Your task to perform on an android device: See recent photos Image 0: 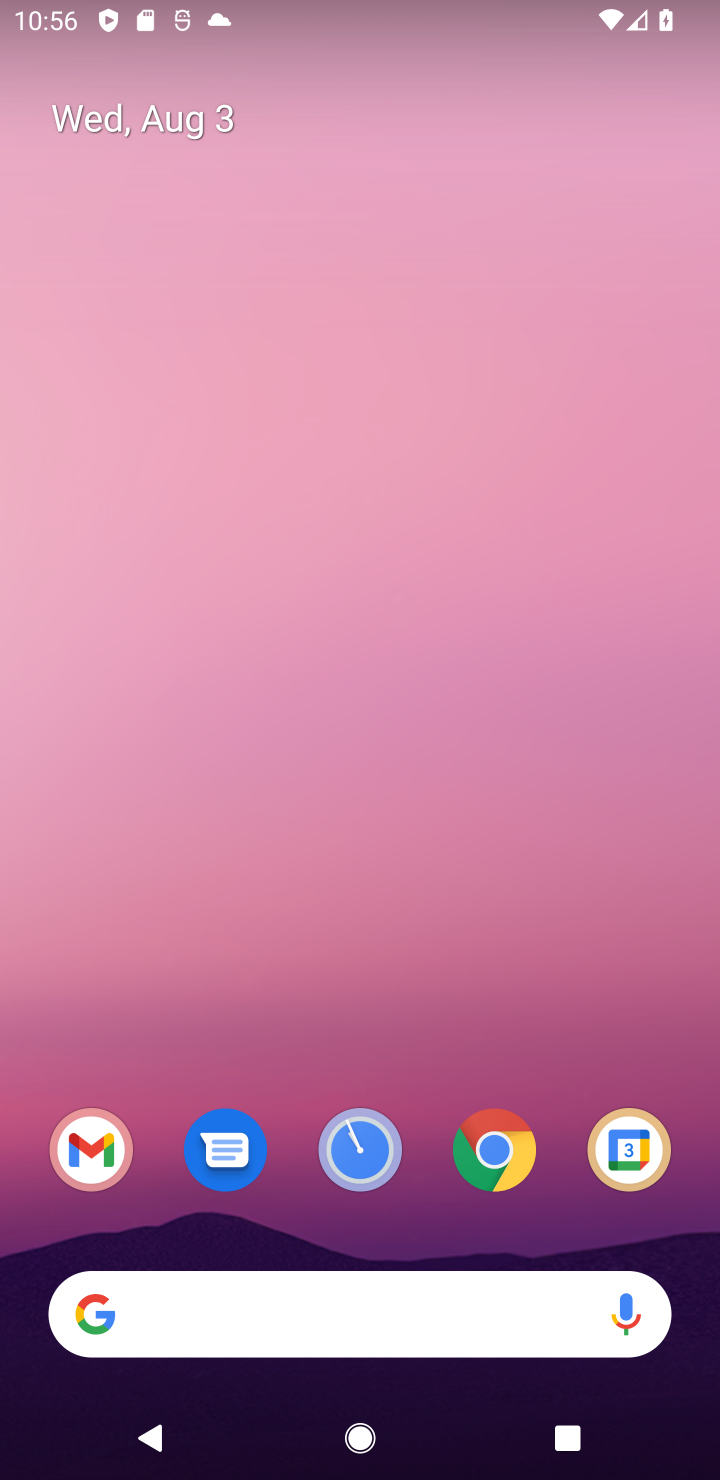
Step 0: press home button
Your task to perform on an android device: See recent photos Image 1: 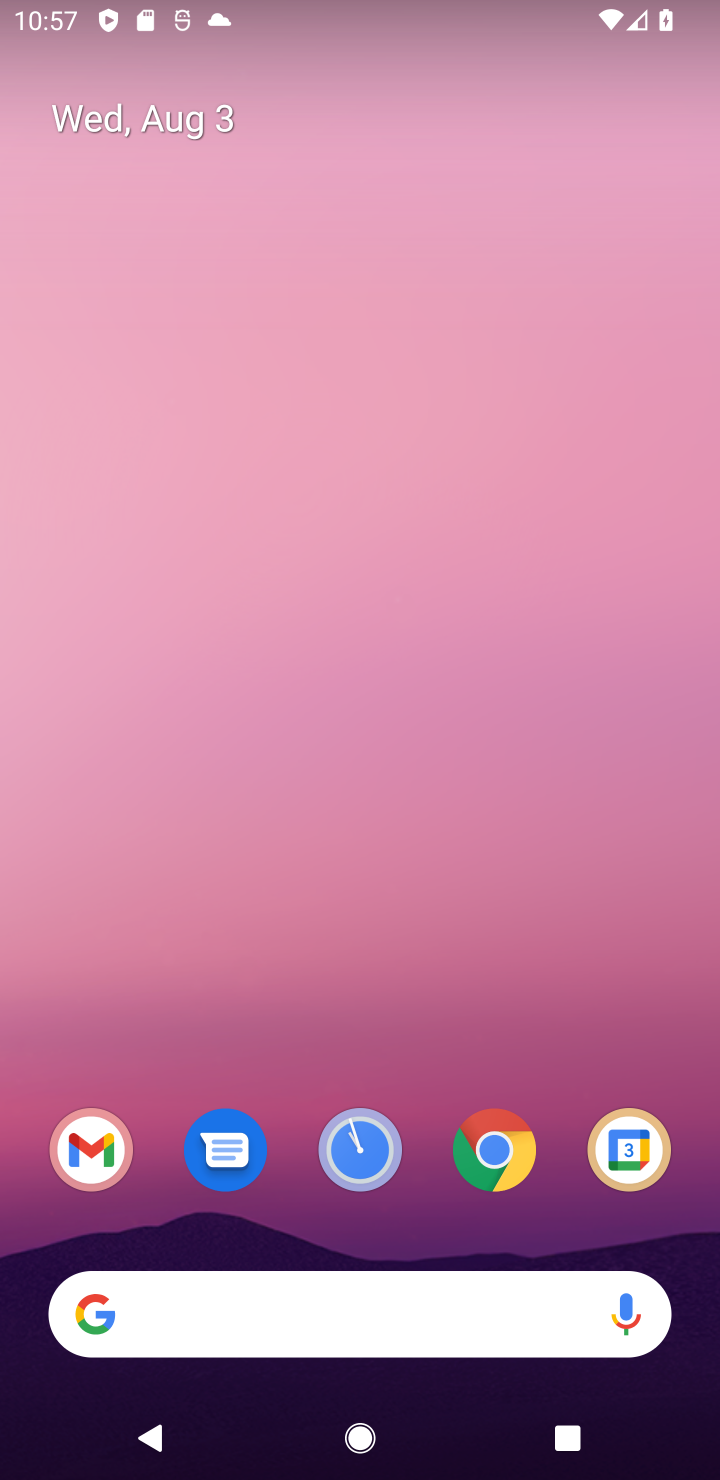
Step 1: drag from (563, 1040) to (584, 331)
Your task to perform on an android device: See recent photos Image 2: 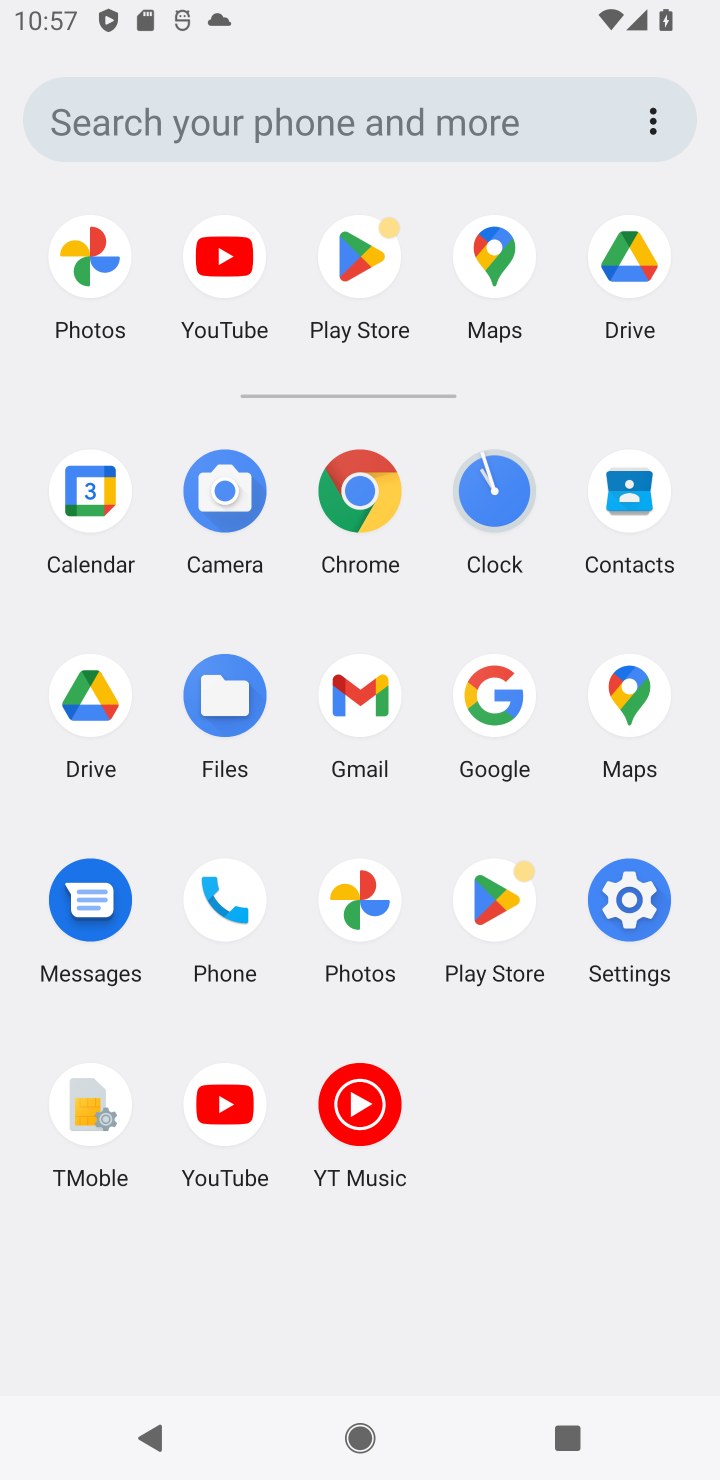
Step 2: click (356, 912)
Your task to perform on an android device: See recent photos Image 3: 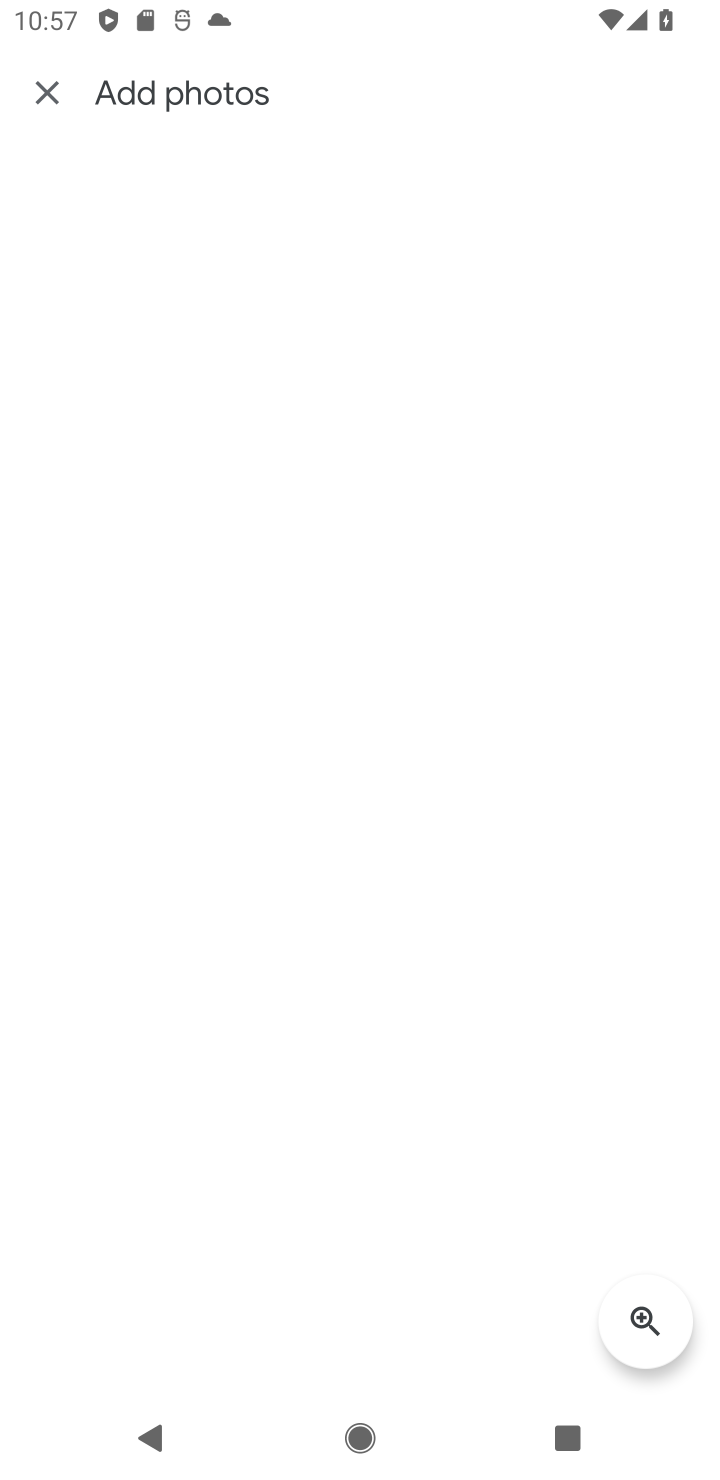
Step 3: click (47, 79)
Your task to perform on an android device: See recent photos Image 4: 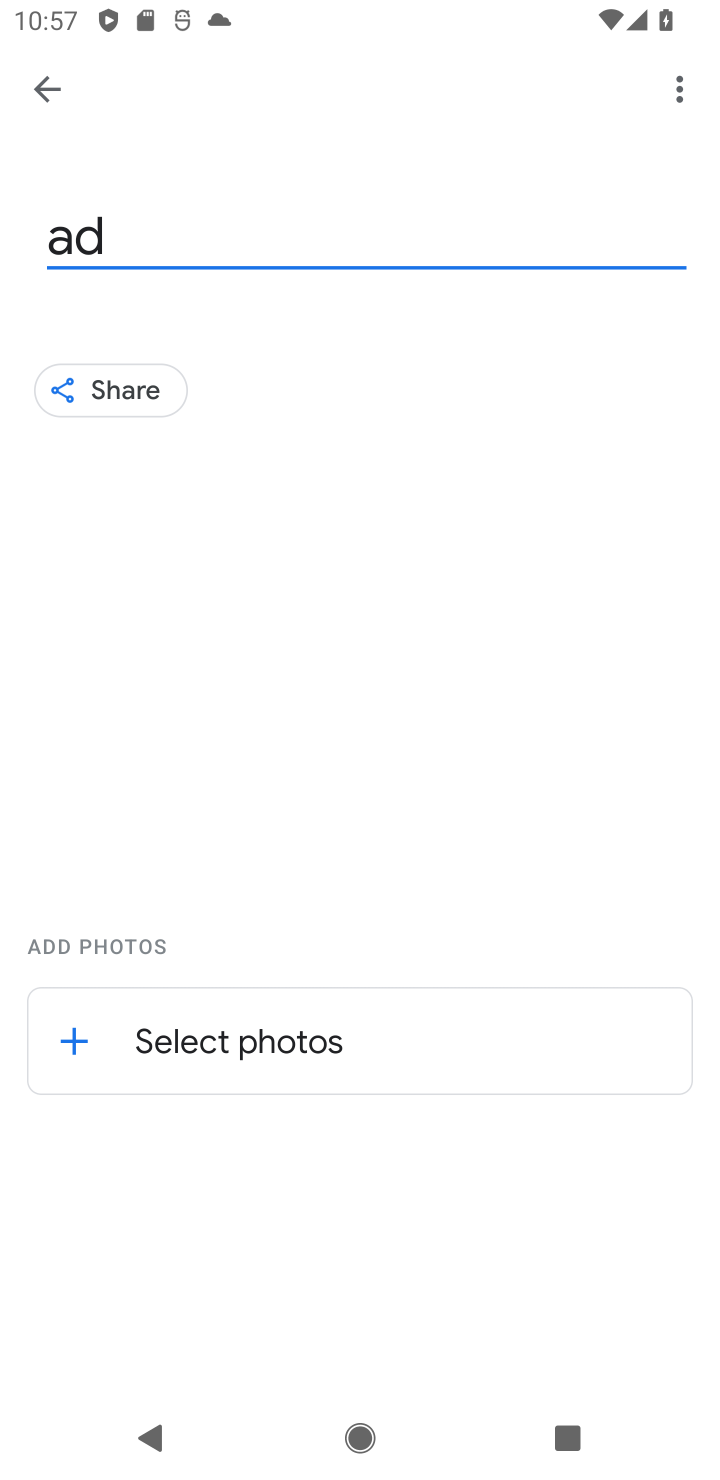
Step 4: press back button
Your task to perform on an android device: See recent photos Image 5: 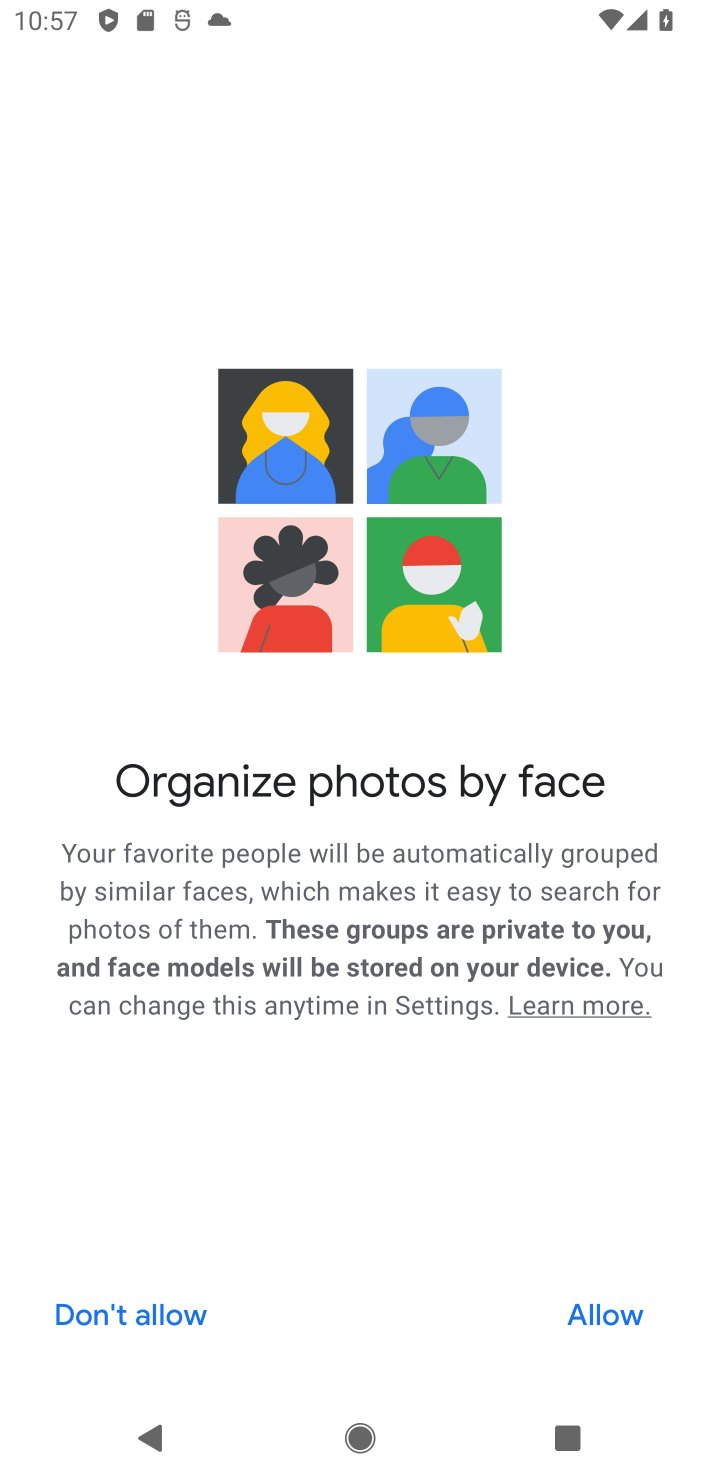
Step 5: click (165, 1312)
Your task to perform on an android device: See recent photos Image 6: 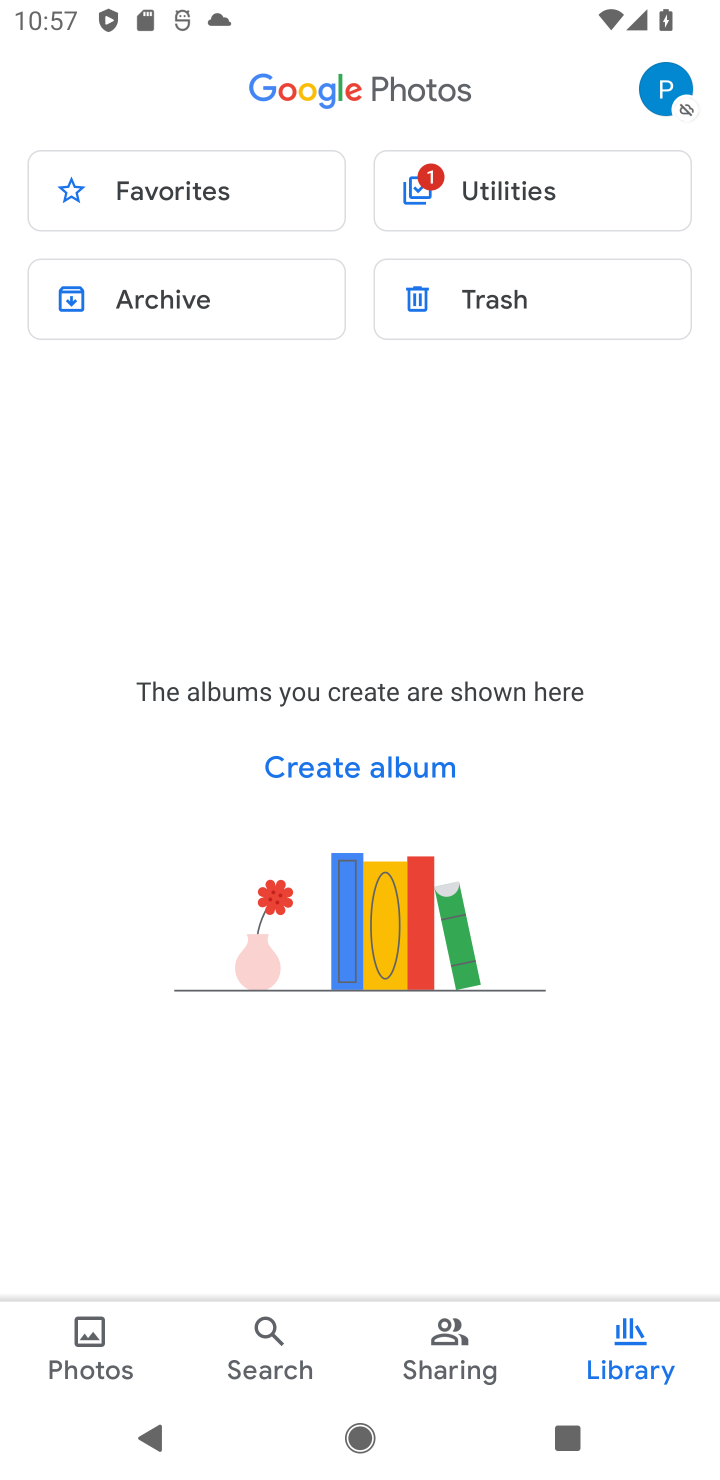
Step 6: click (70, 1359)
Your task to perform on an android device: See recent photos Image 7: 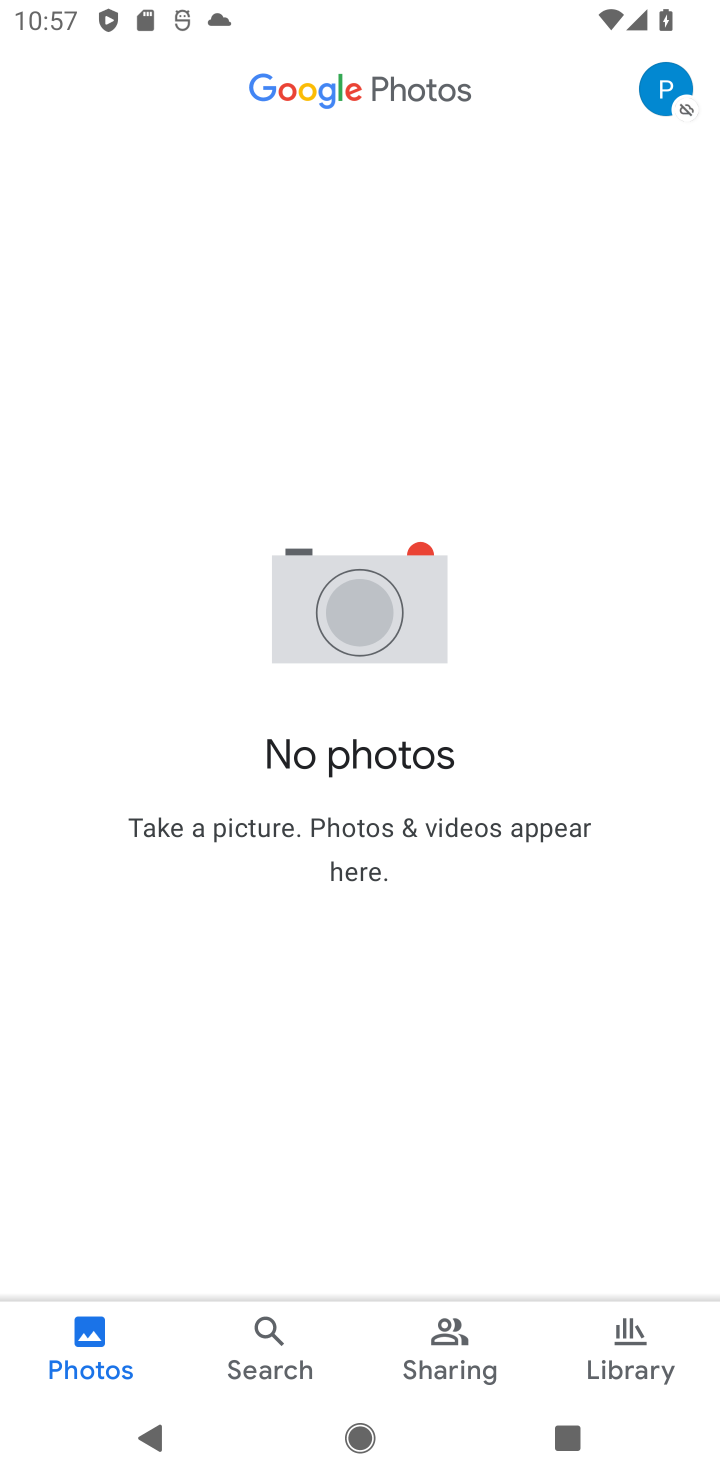
Step 7: task complete